Your task to perform on an android device: Open location settings Image 0: 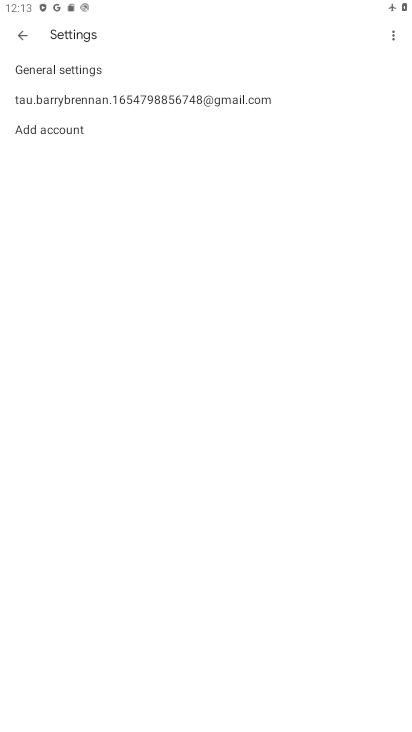
Step 0: press home button
Your task to perform on an android device: Open location settings Image 1: 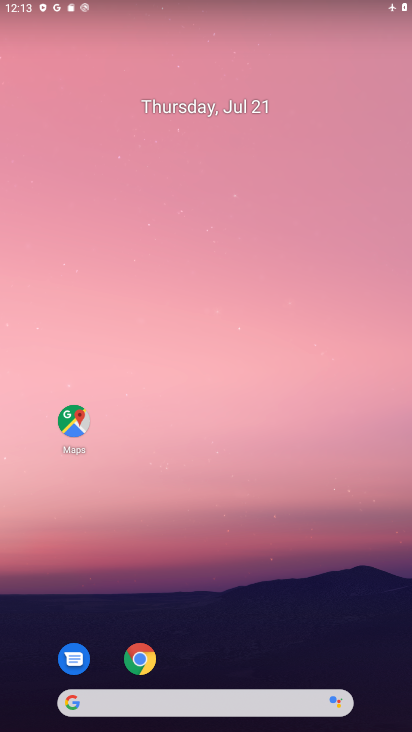
Step 1: drag from (267, 616) to (265, 146)
Your task to perform on an android device: Open location settings Image 2: 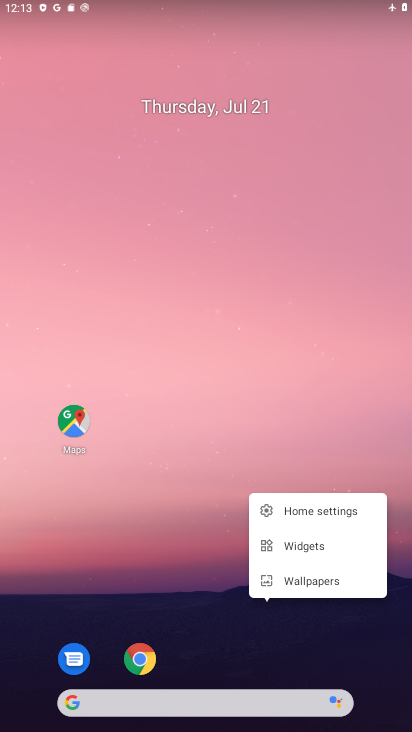
Step 2: drag from (385, 654) to (360, 197)
Your task to perform on an android device: Open location settings Image 3: 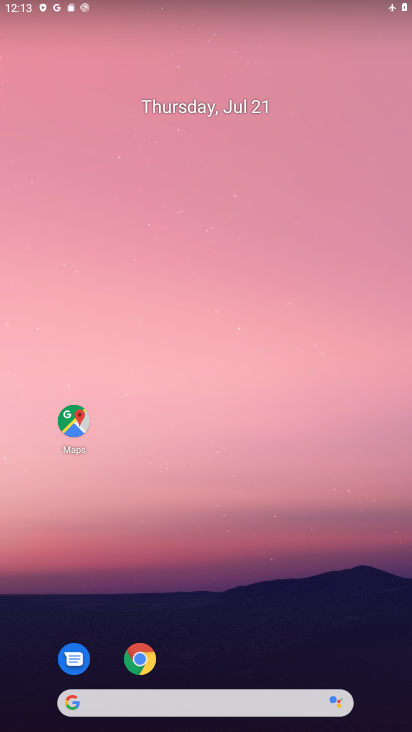
Step 3: drag from (285, 658) to (263, 198)
Your task to perform on an android device: Open location settings Image 4: 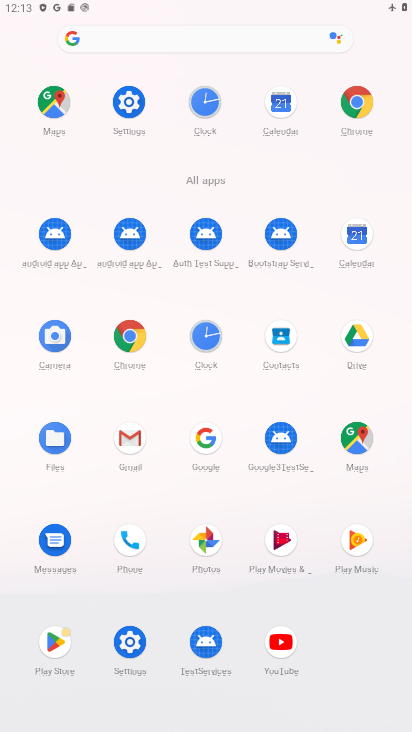
Step 4: click (131, 100)
Your task to perform on an android device: Open location settings Image 5: 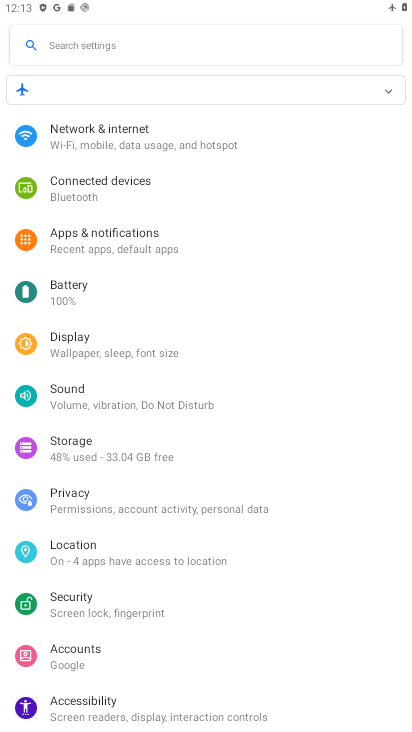
Step 5: click (129, 564)
Your task to perform on an android device: Open location settings Image 6: 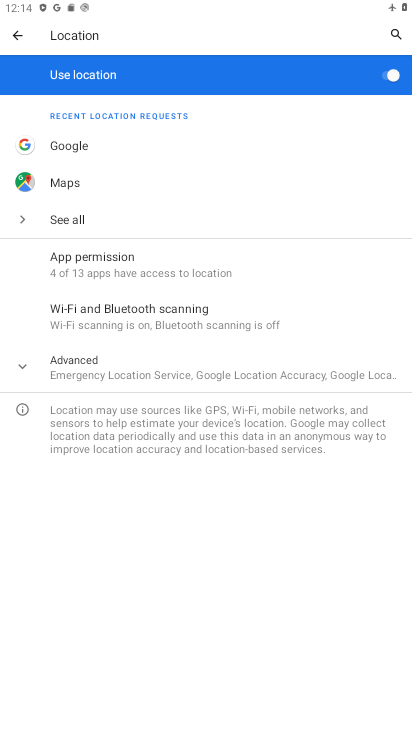
Step 6: task complete